Your task to perform on an android device: Open network settings Image 0: 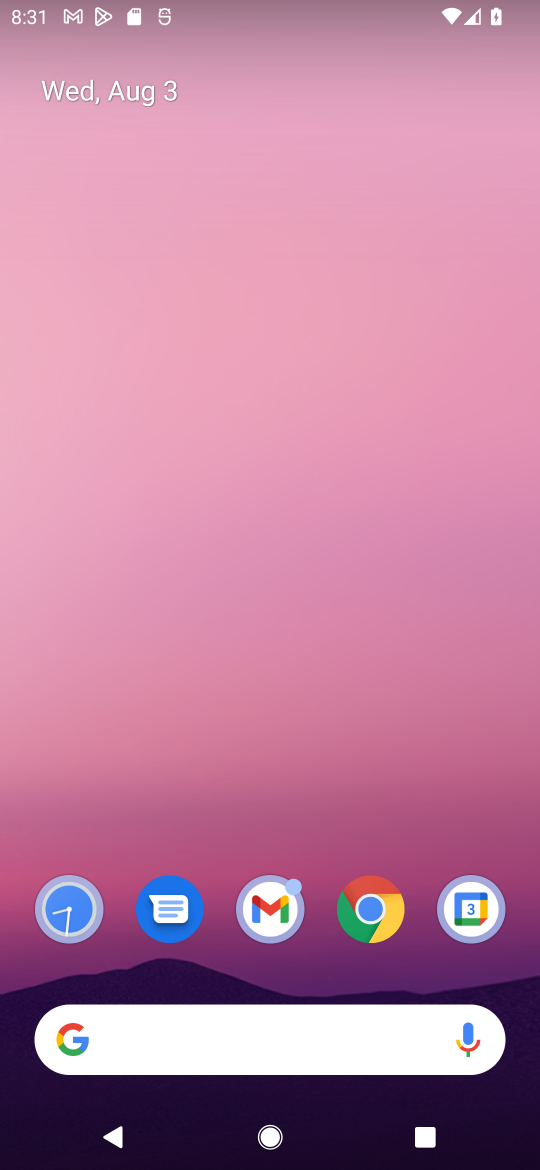
Step 0: drag from (416, 809) to (445, 256)
Your task to perform on an android device: Open network settings Image 1: 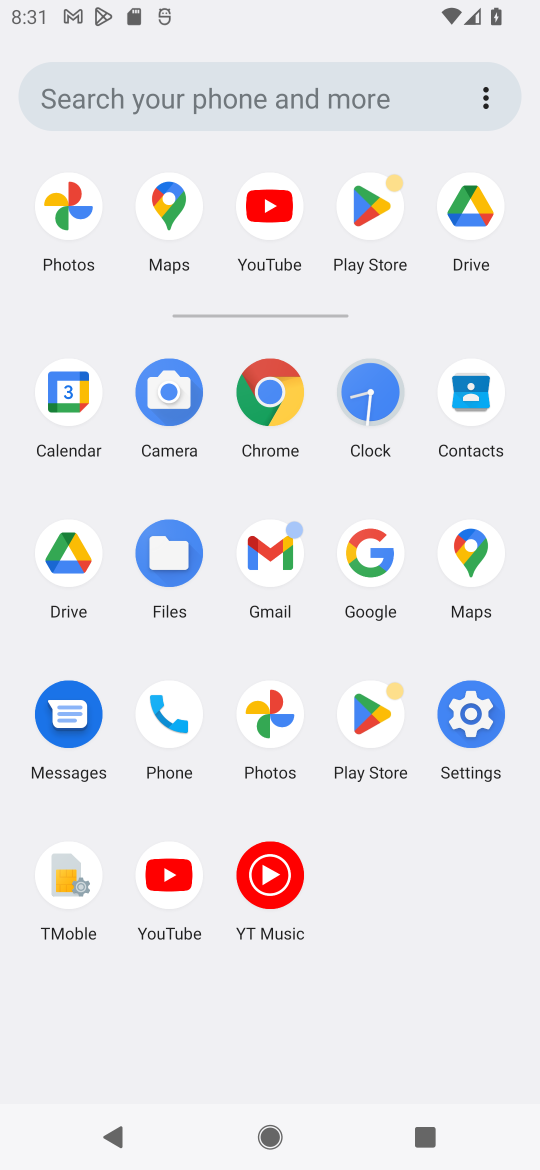
Step 1: click (473, 711)
Your task to perform on an android device: Open network settings Image 2: 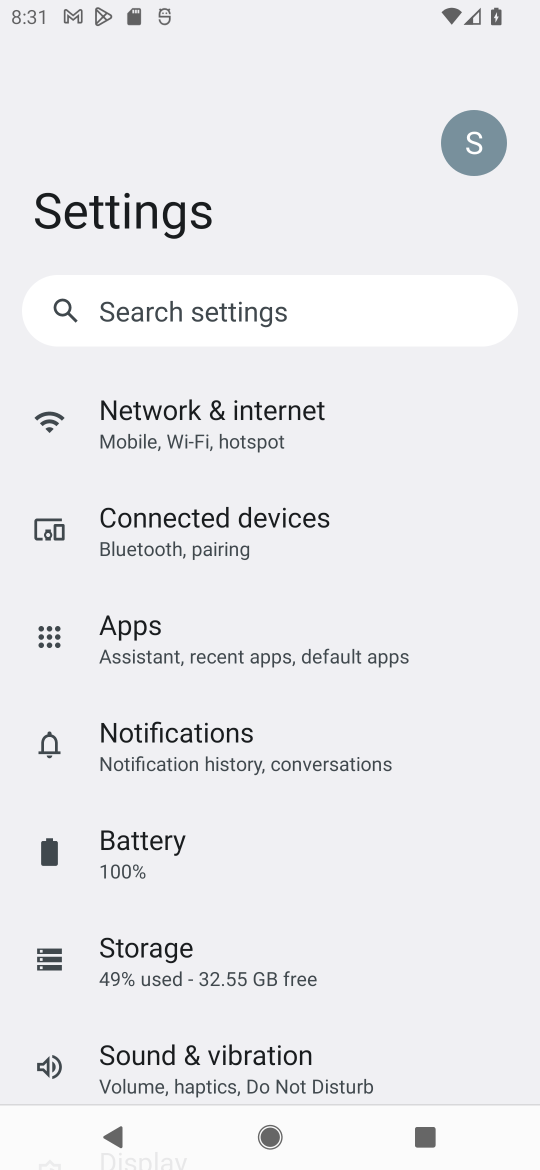
Step 2: drag from (462, 920) to (467, 751)
Your task to perform on an android device: Open network settings Image 3: 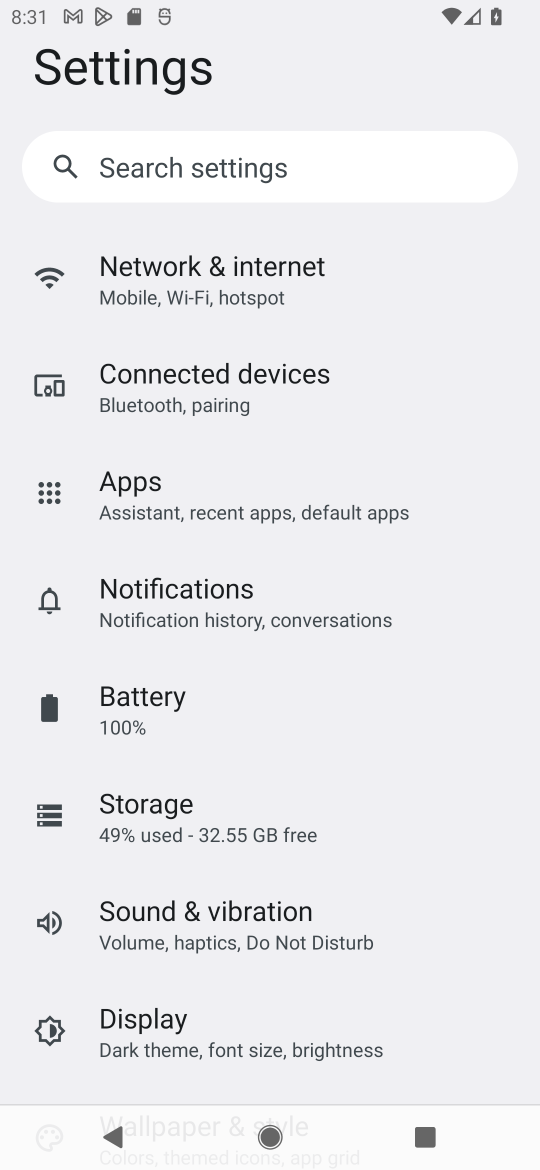
Step 3: drag from (442, 955) to (453, 737)
Your task to perform on an android device: Open network settings Image 4: 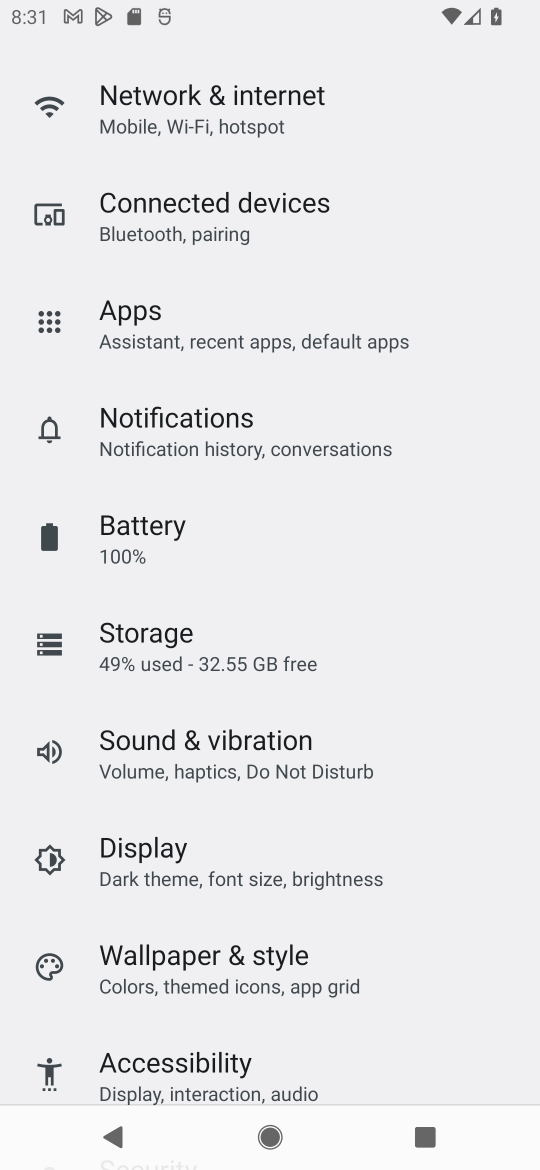
Step 4: drag from (434, 1006) to (441, 844)
Your task to perform on an android device: Open network settings Image 5: 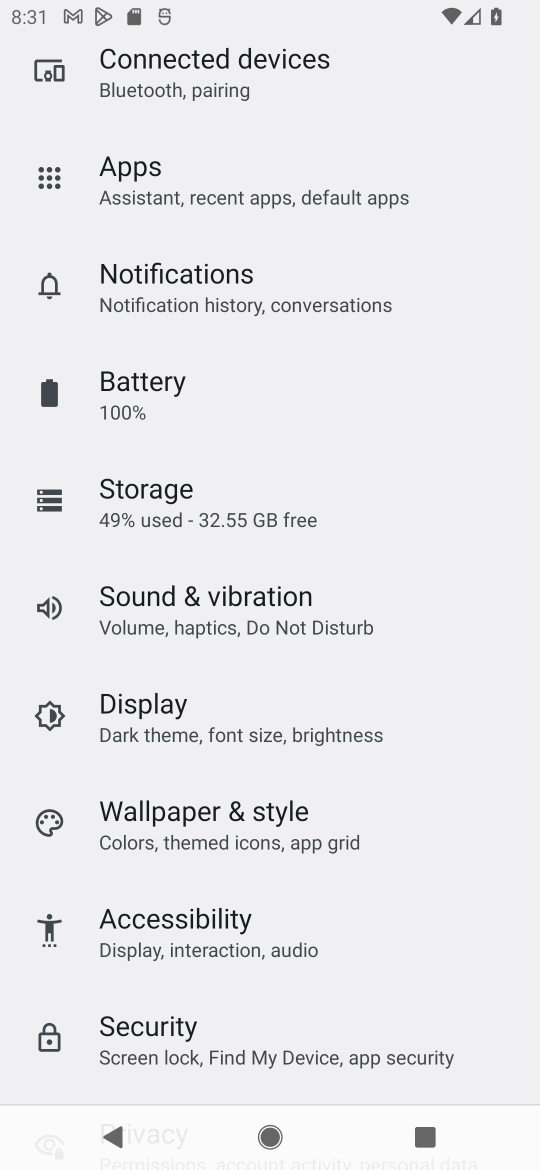
Step 5: drag from (449, 986) to (464, 800)
Your task to perform on an android device: Open network settings Image 6: 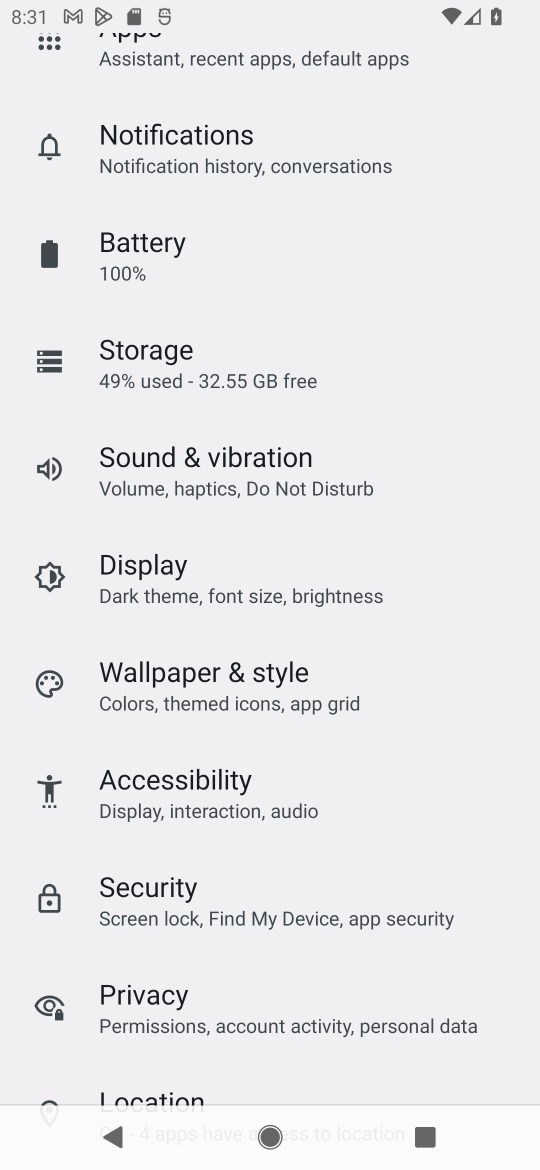
Step 6: drag from (451, 1052) to (459, 843)
Your task to perform on an android device: Open network settings Image 7: 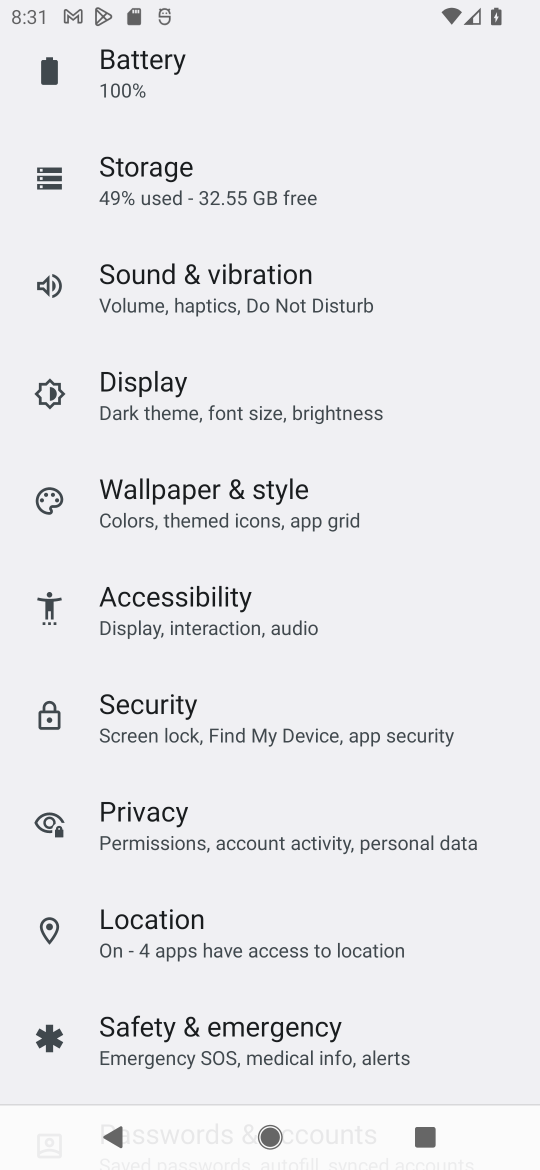
Step 7: drag from (463, 997) to (480, 836)
Your task to perform on an android device: Open network settings Image 8: 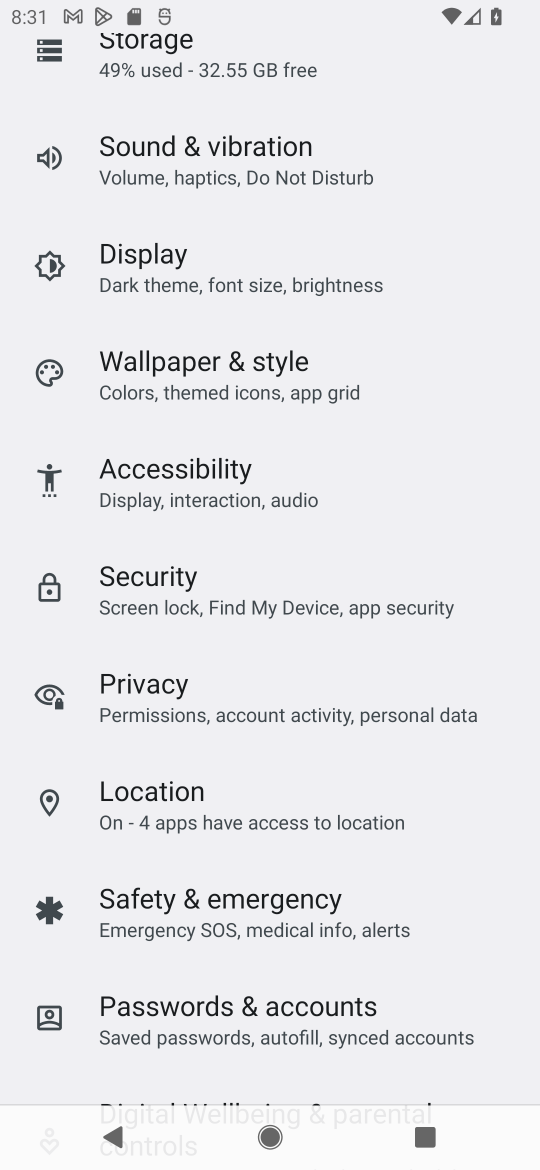
Step 8: drag from (488, 576) to (484, 734)
Your task to perform on an android device: Open network settings Image 9: 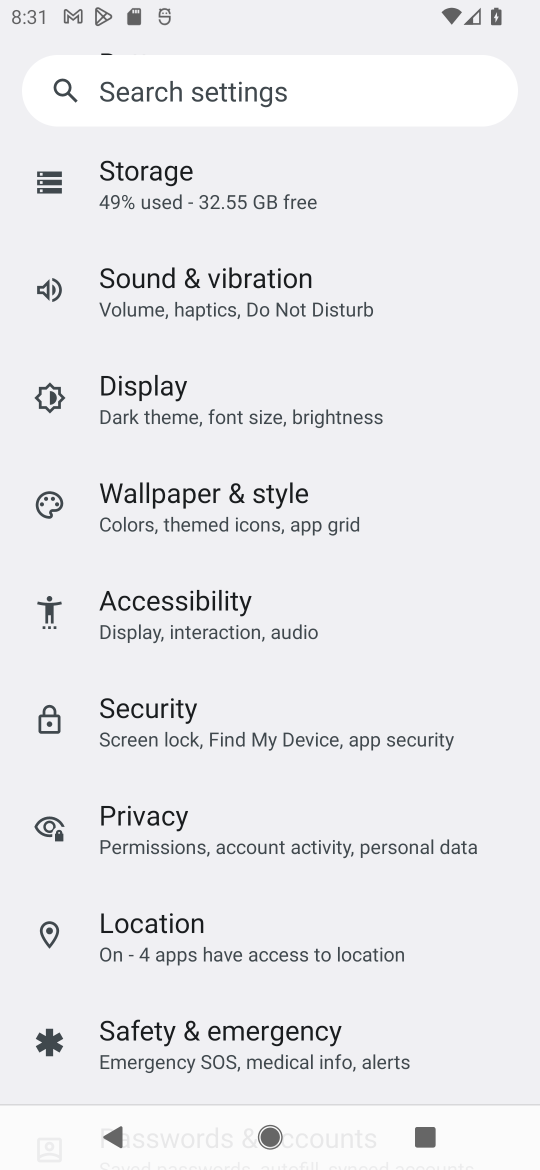
Step 9: drag from (485, 475) to (484, 681)
Your task to perform on an android device: Open network settings Image 10: 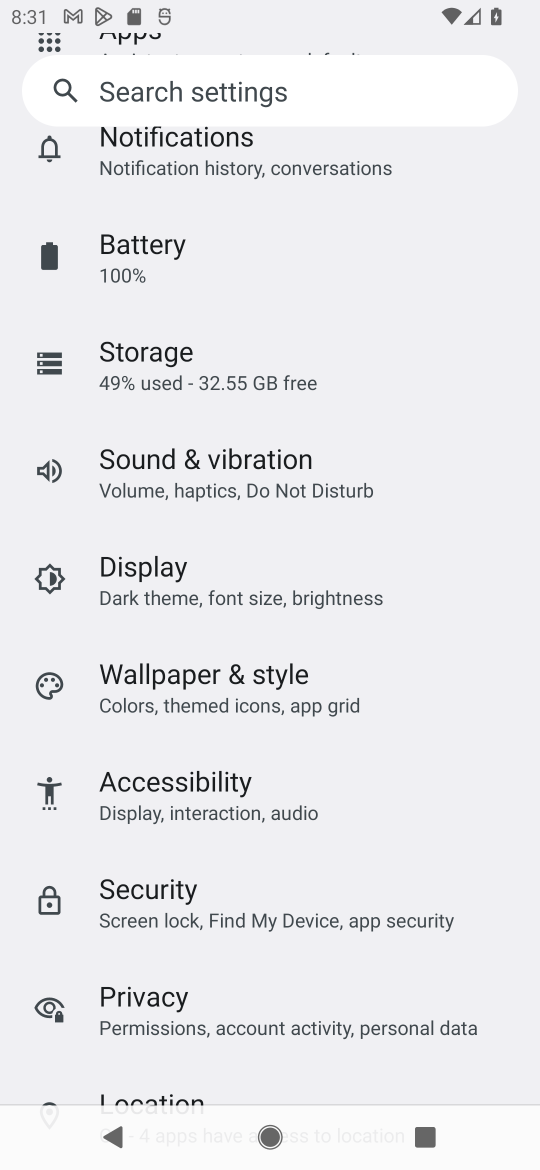
Step 10: drag from (466, 471) to (460, 647)
Your task to perform on an android device: Open network settings Image 11: 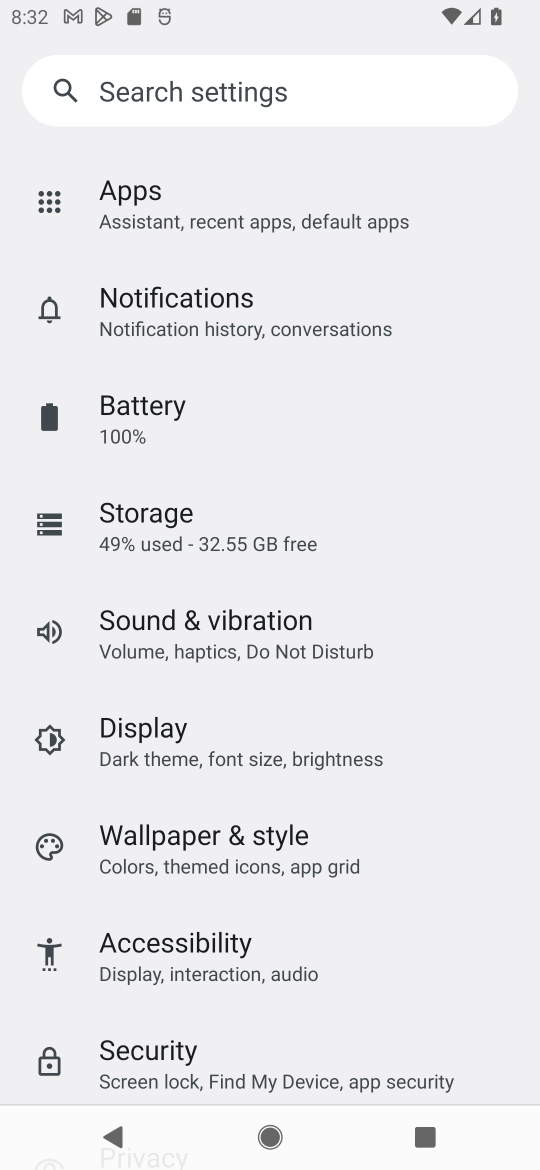
Step 11: drag from (457, 507) to (451, 682)
Your task to perform on an android device: Open network settings Image 12: 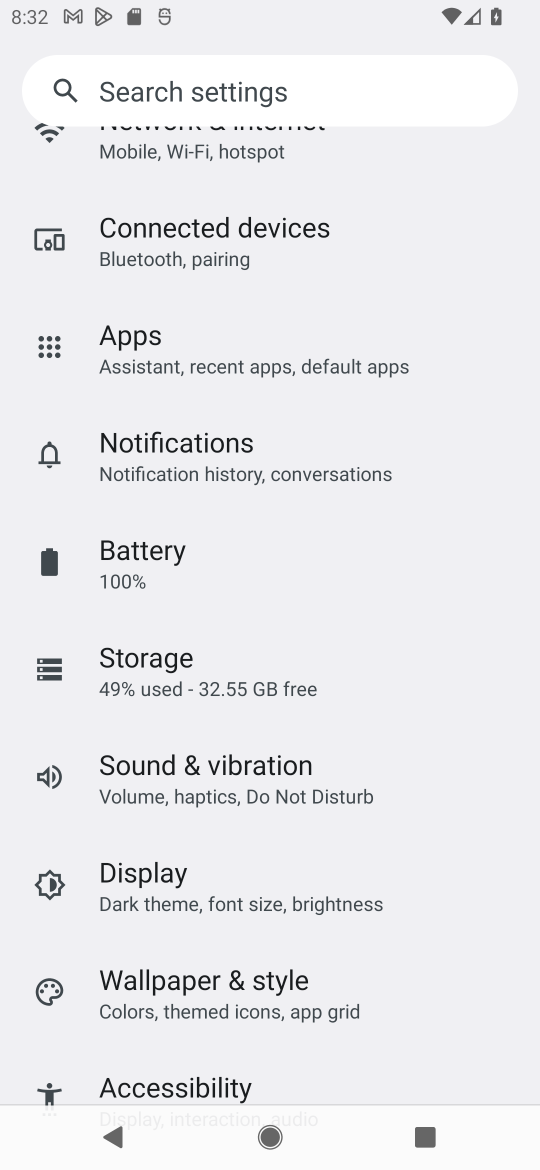
Step 12: drag from (451, 527) to (448, 748)
Your task to perform on an android device: Open network settings Image 13: 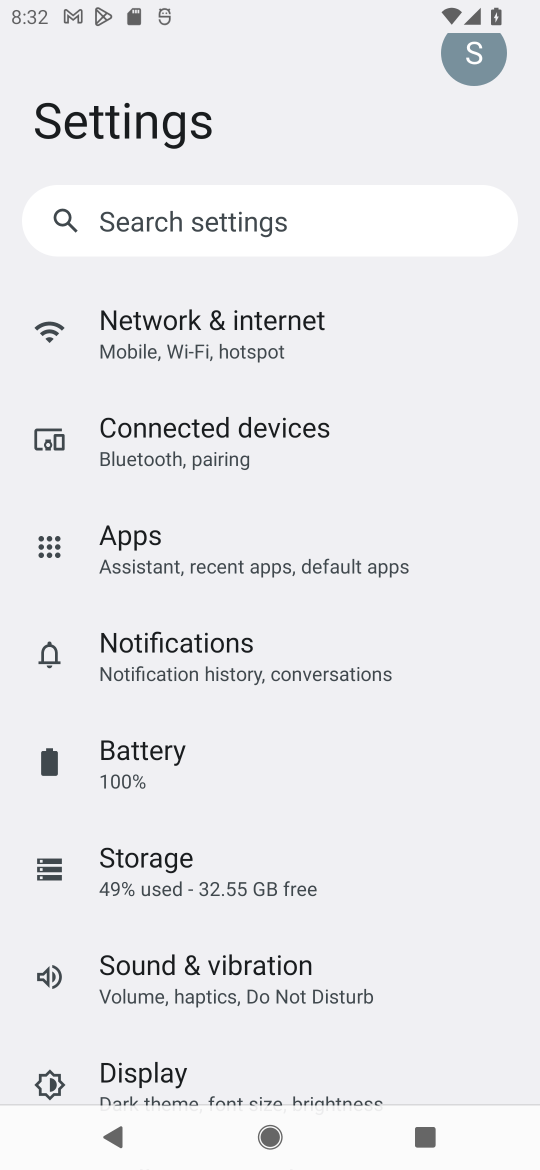
Step 13: drag from (449, 478) to (445, 769)
Your task to perform on an android device: Open network settings Image 14: 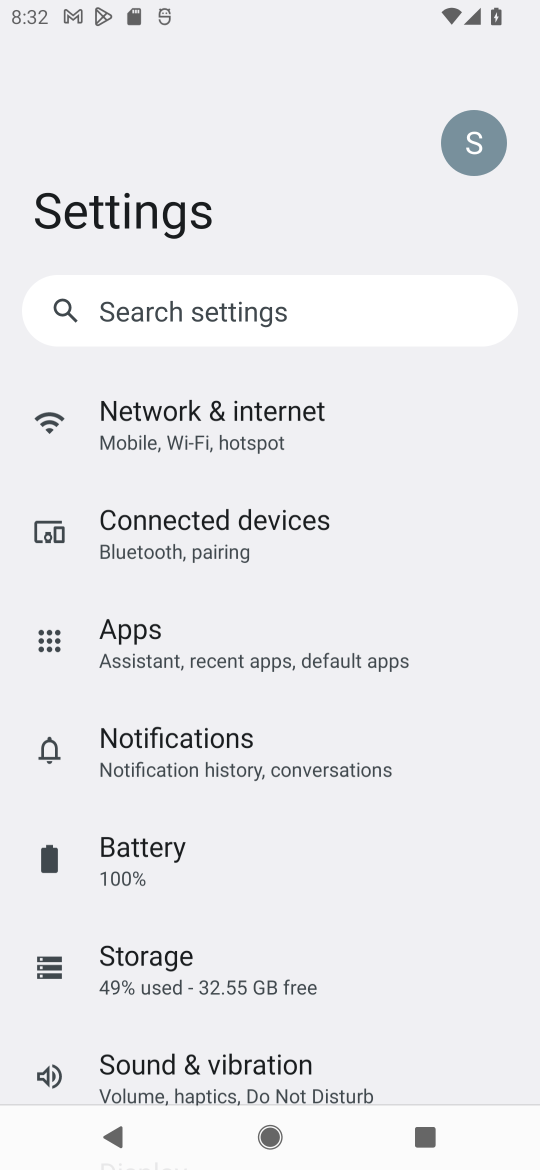
Step 14: click (347, 431)
Your task to perform on an android device: Open network settings Image 15: 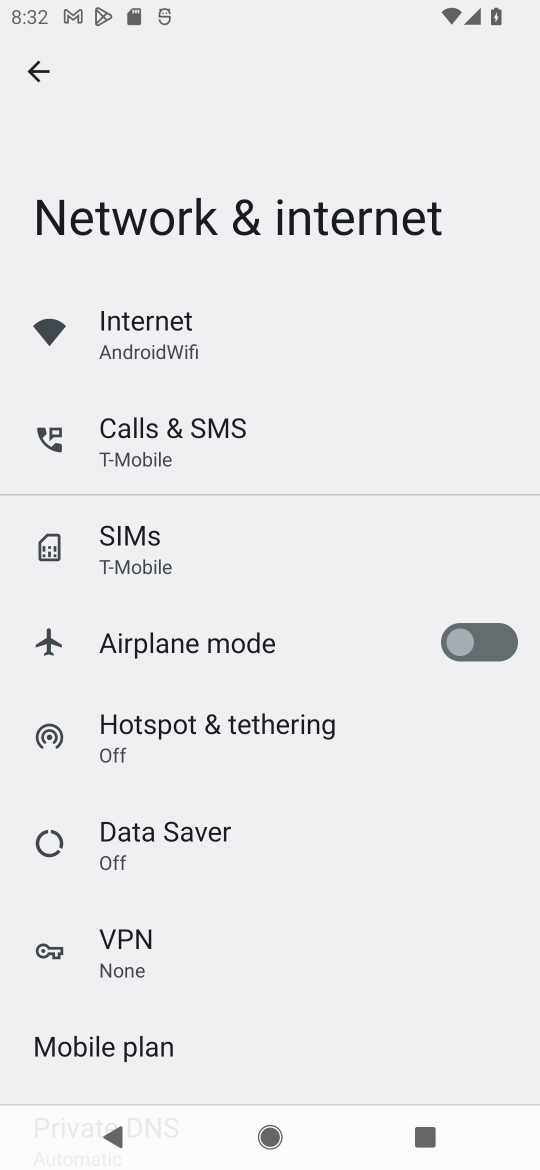
Step 15: task complete